Your task to perform on an android device: Open the calendar and show me this week's events? Image 0: 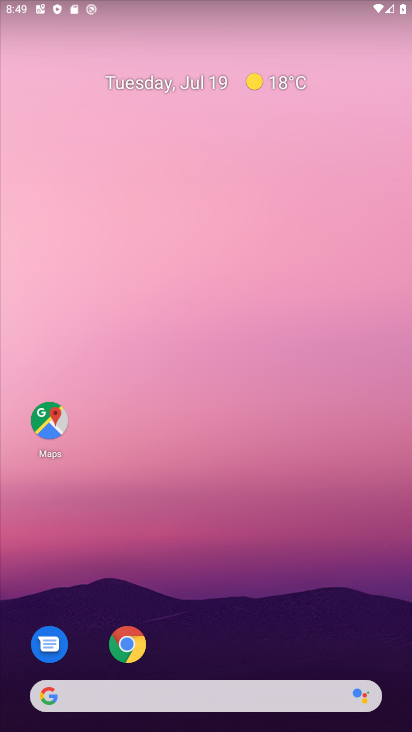
Step 0: drag from (206, 706) to (198, 140)
Your task to perform on an android device: Open the calendar and show me this week's events? Image 1: 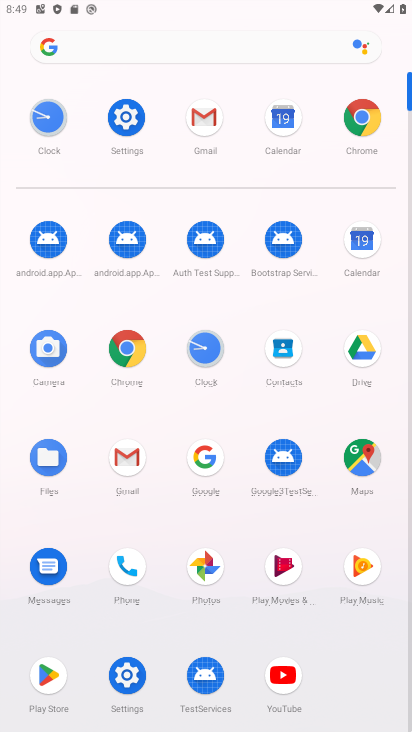
Step 1: click (362, 244)
Your task to perform on an android device: Open the calendar and show me this week's events? Image 2: 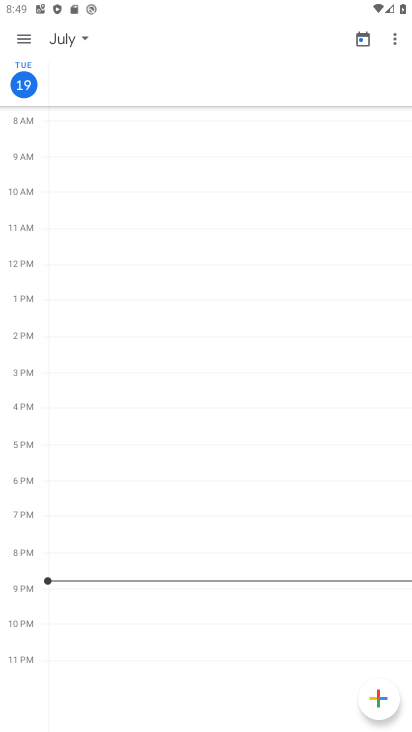
Step 2: click (26, 37)
Your task to perform on an android device: Open the calendar and show me this week's events? Image 3: 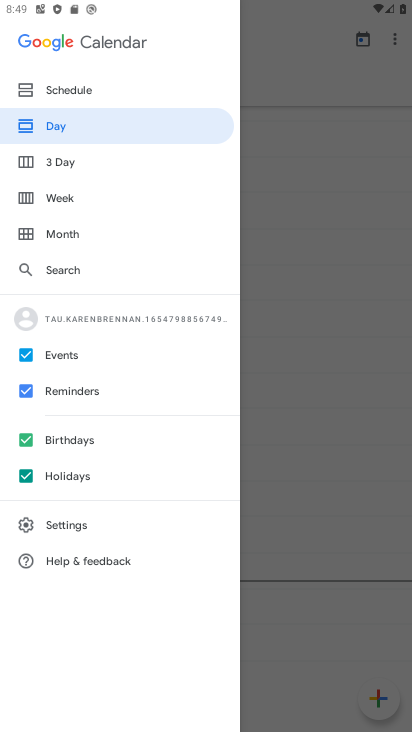
Step 3: click (65, 192)
Your task to perform on an android device: Open the calendar and show me this week's events? Image 4: 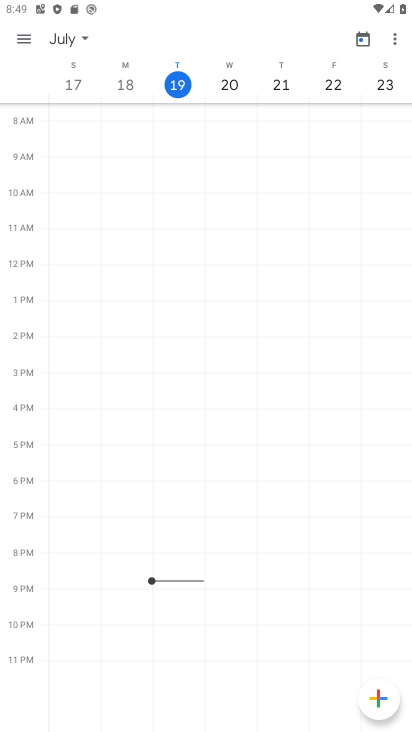
Step 4: task complete